Your task to perform on an android device: When is my next appointment? Image 0: 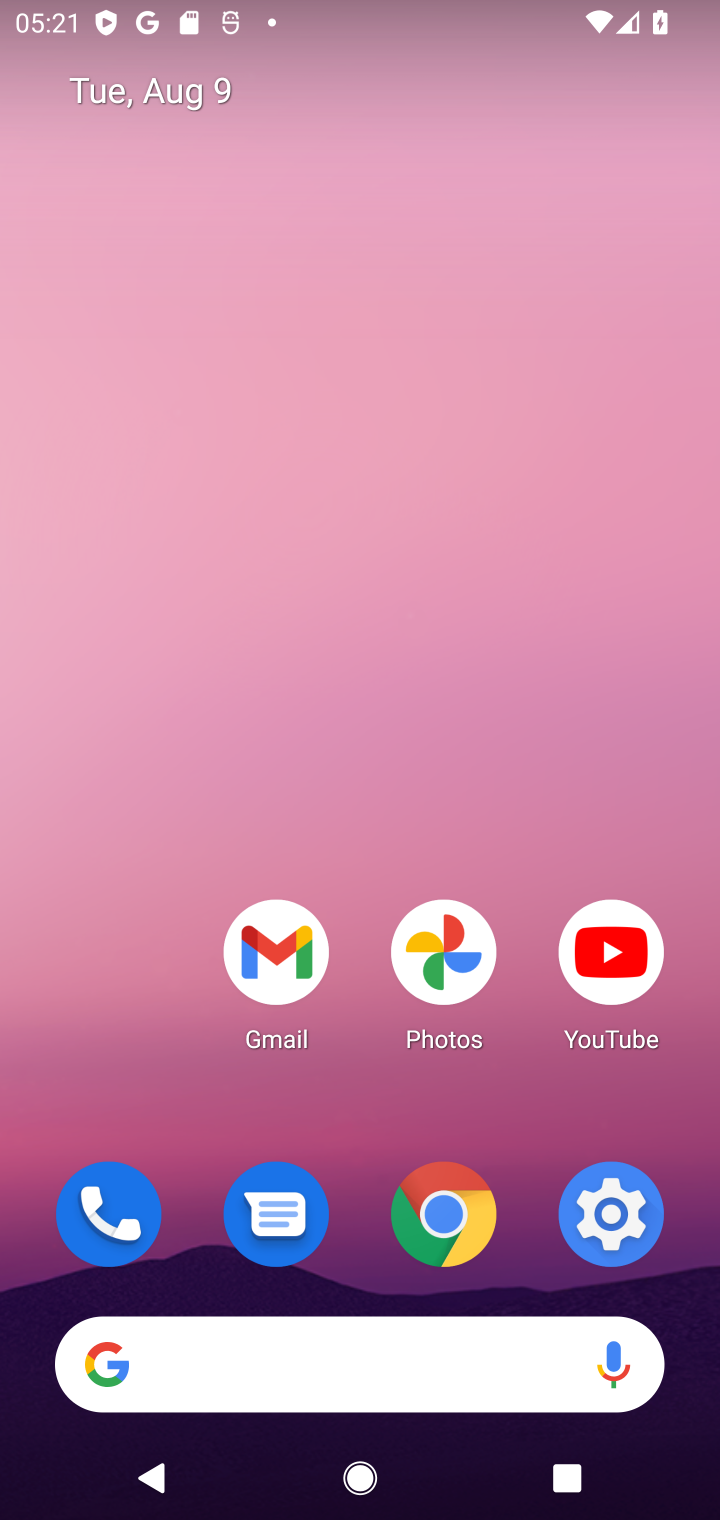
Step 0: drag from (423, 1409) to (361, 443)
Your task to perform on an android device: When is my next appointment? Image 1: 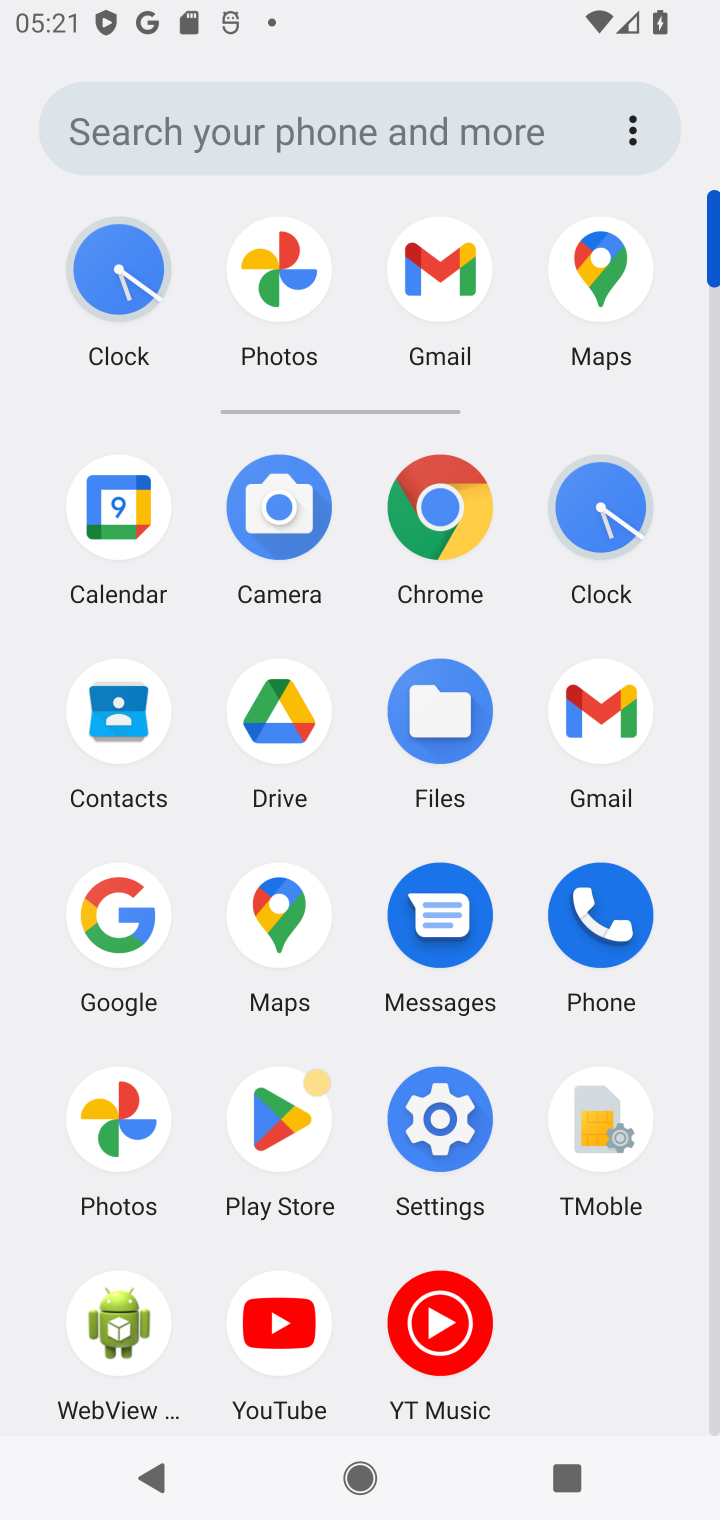
Step 1: click (134, 525)
Your task to perform on an android device: When is my next appointment? Image 2: 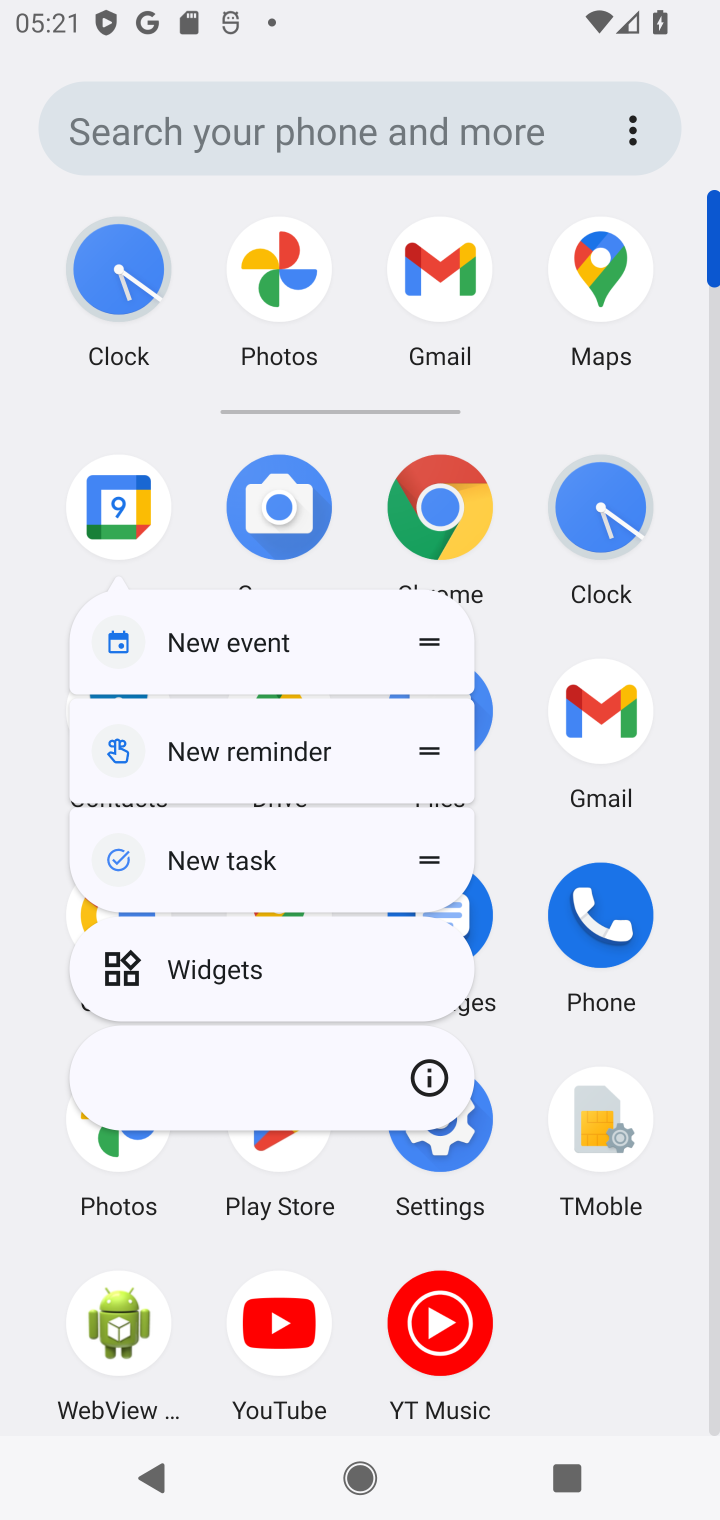
Step 2: click (116, 480)
Your task to perform on an android device: When is my next appointment? Image 3: 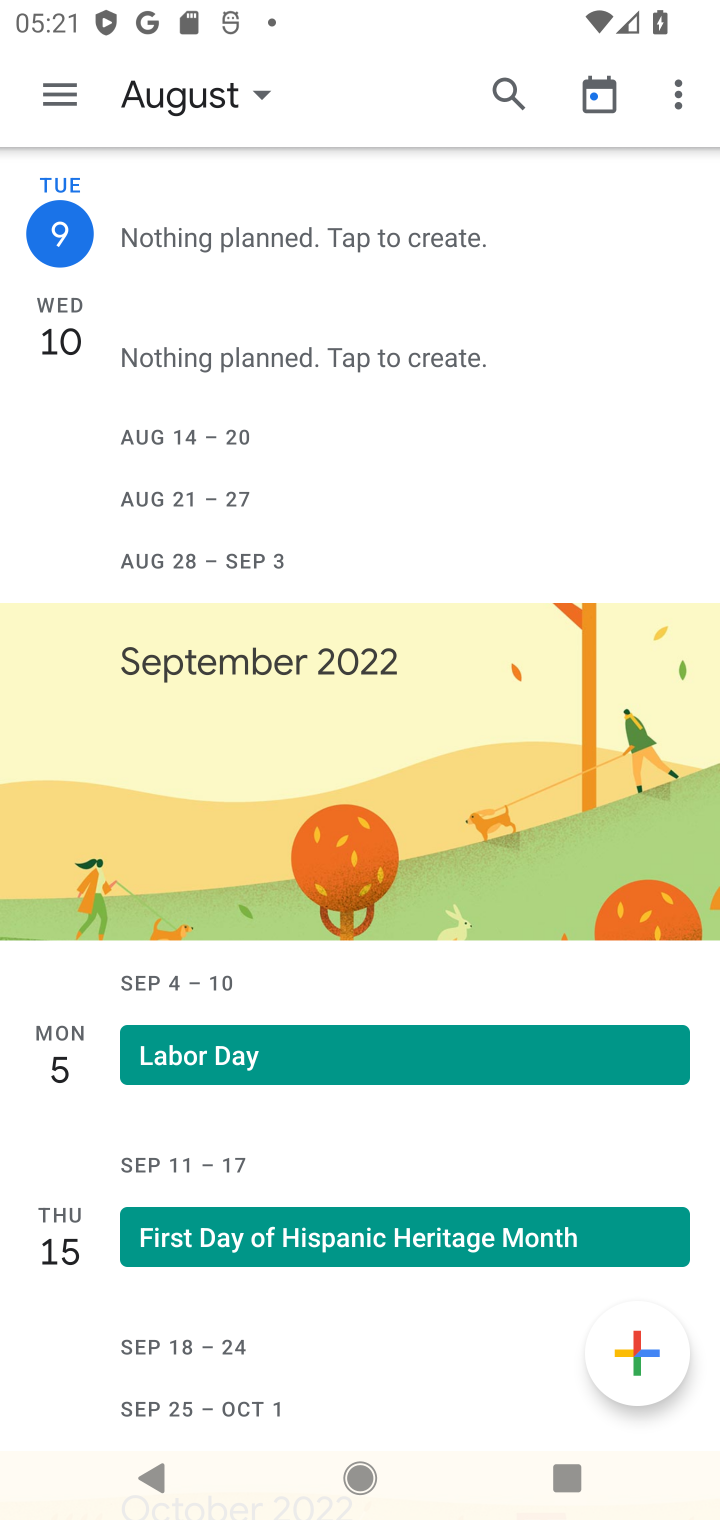
Step 3: click (48, 92)
Your task to perform on an android device: When is my next appointment? Image 4: 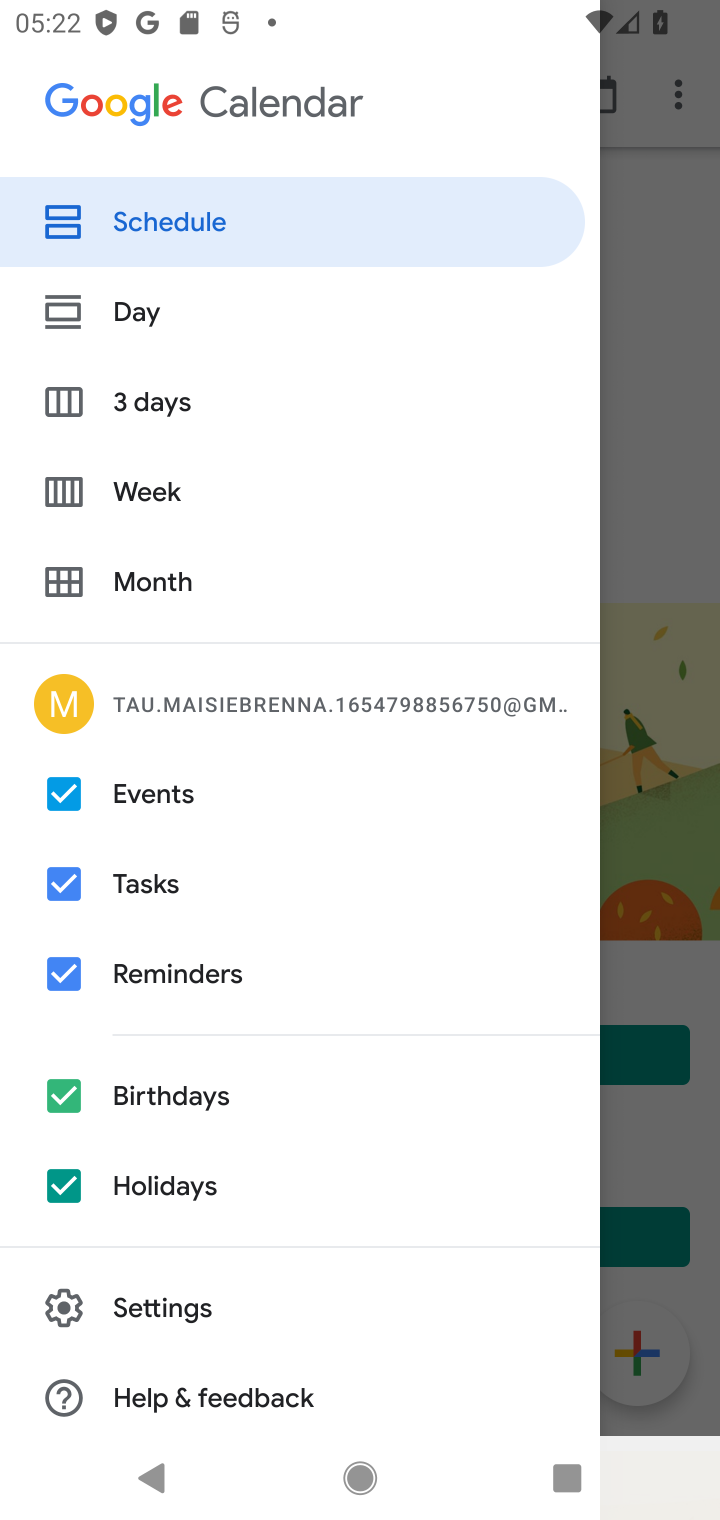
Step 4: click (125, 573)
Your task to perform on an android device: When is my next appointment? Image 5: 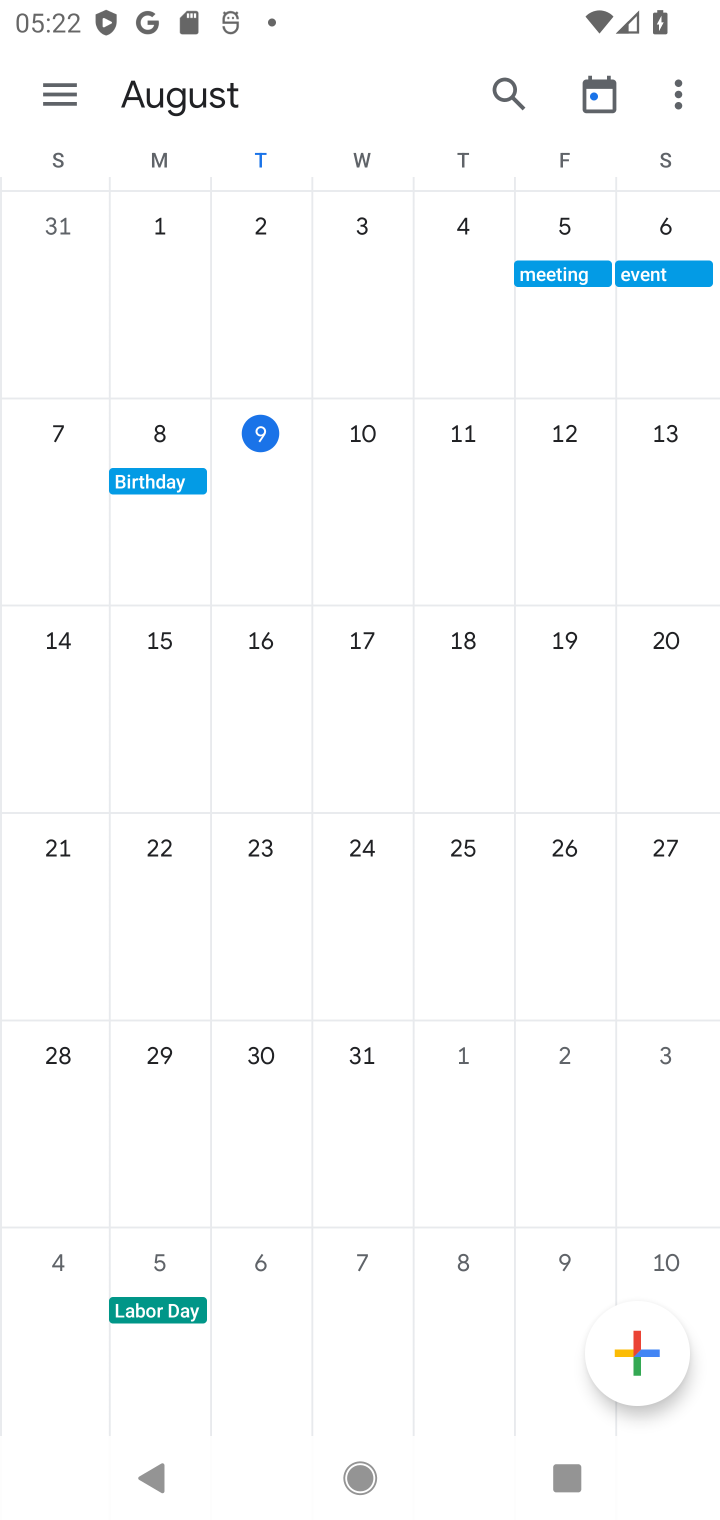
Step 5: click (251, 522)
Your task to perform on an android device: When is my next appointment? Image 6: 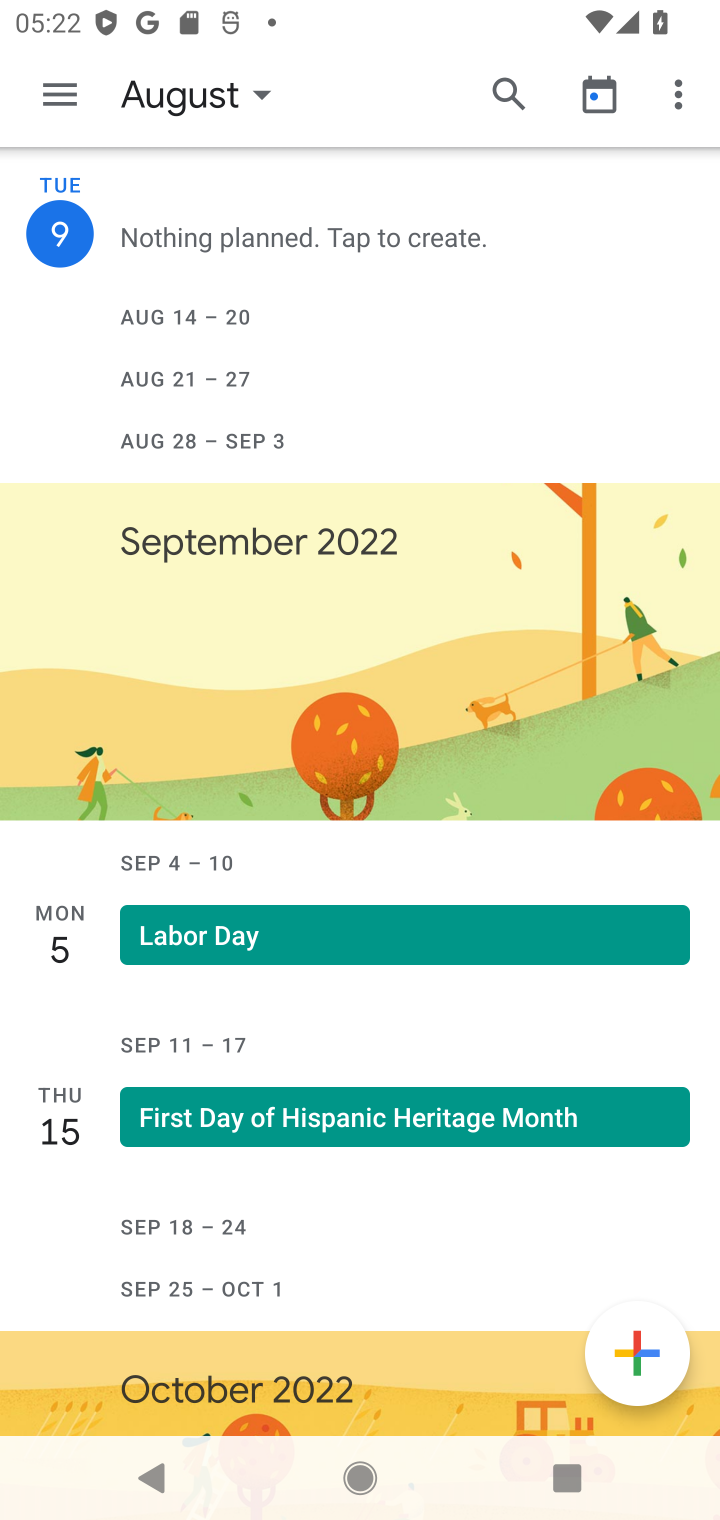
Step 6: task complete